Your task to perform on an android device: Toggle the flashlight Image 0: 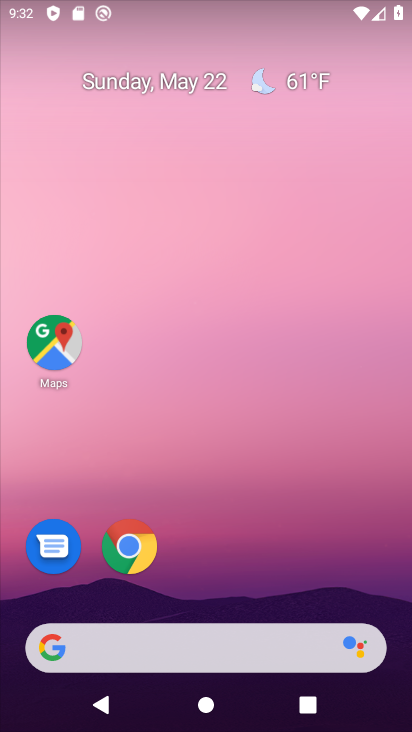
Step 0: drag from (143, 12) to (197, 557)
Your task to perform on an android device: Toggle the flashlight Image 1: 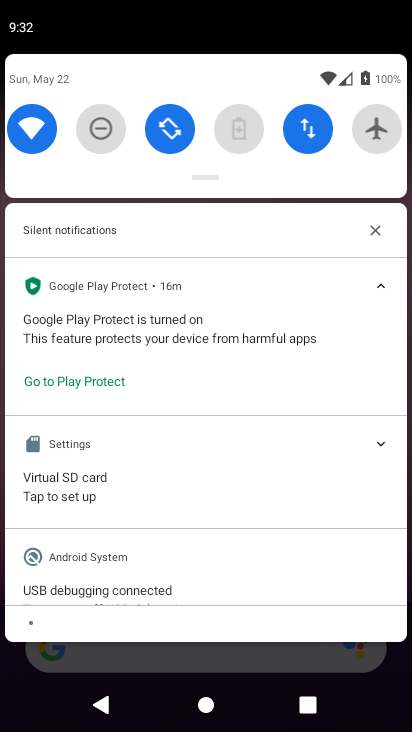
Step 1: task complete